Your task to perform on an android device: visit the assistant section in the google photos Image 0: 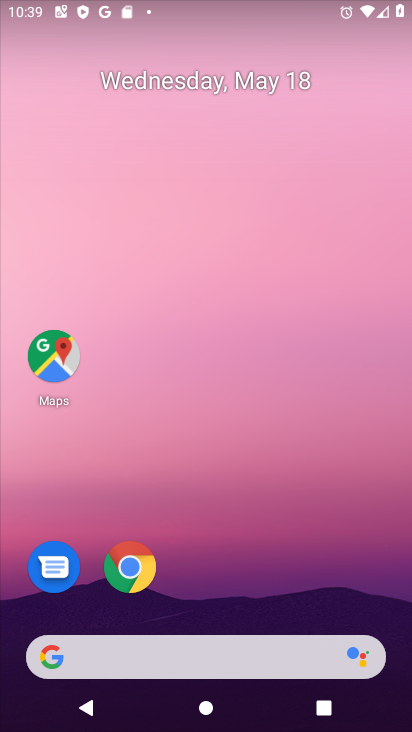
Step 0: drag from (220, 663) to (277, 1)
Your task to perform on an android device: visit the assistant section in the google photos Image 1: 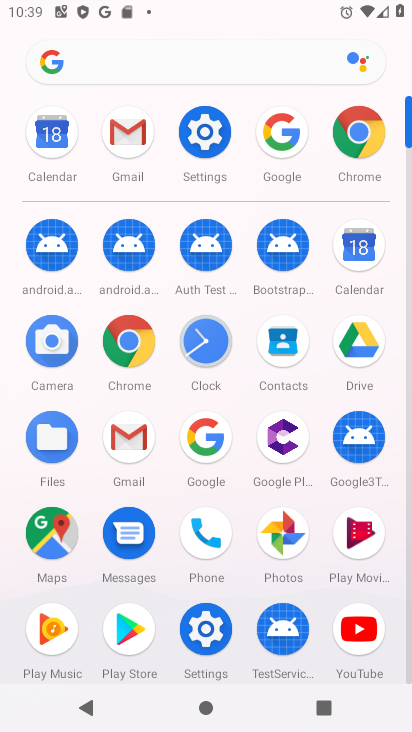
Step 1: click (292, 533)
Your task to perform on an android device: visit the assistant section in the google photos Image 2: 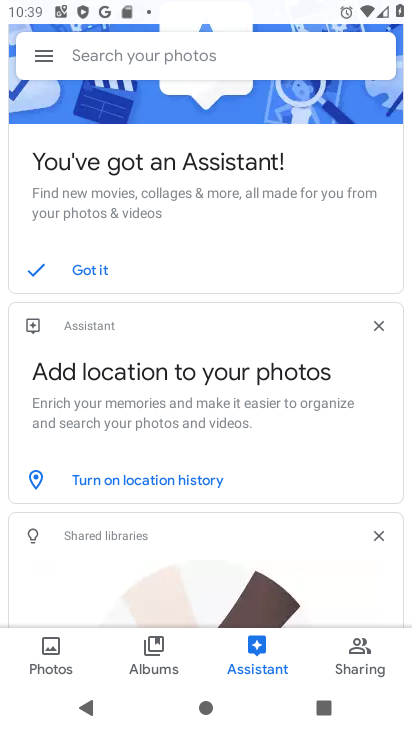
Step 2: click (272, 657)
Your task to perform on an android device: visit the assistant section in the google photos Image 3: 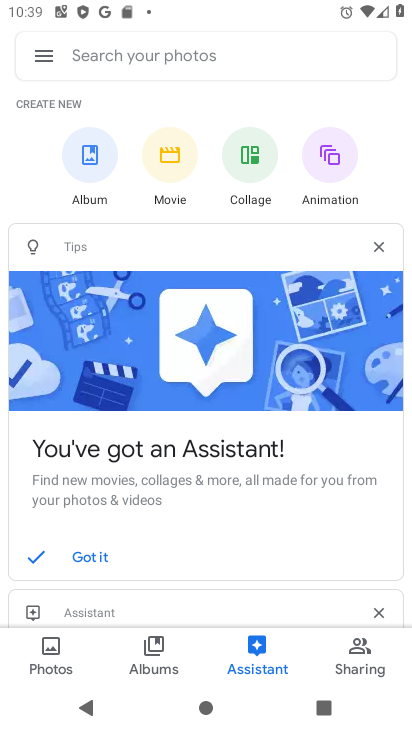
Step 3: task complete